Your task to perform on an android device: clear history in the chrome app Image 0: 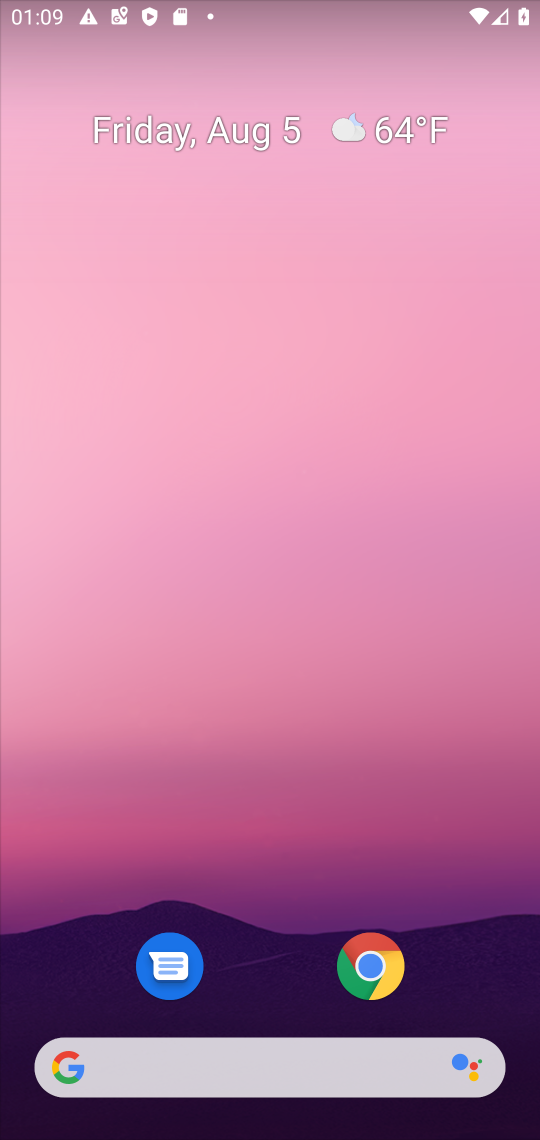
Step 0: click (387, 972)
Your task to perform on an android device: clear history in the chrome app Image 1: 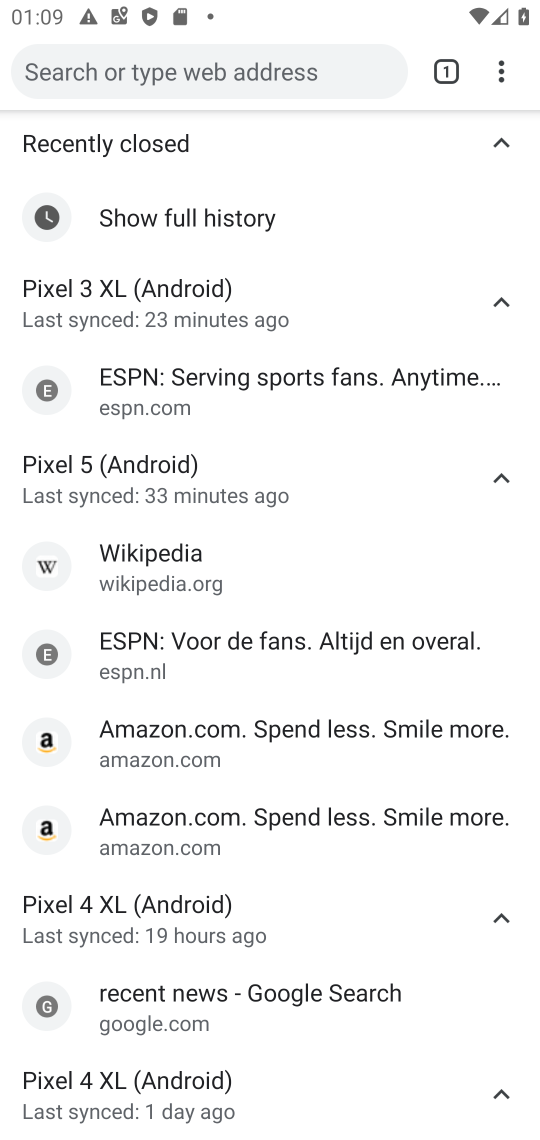
Step 1: click (500, 64)
Your task to perform on an android device: clear history in the chrome app Image 2: 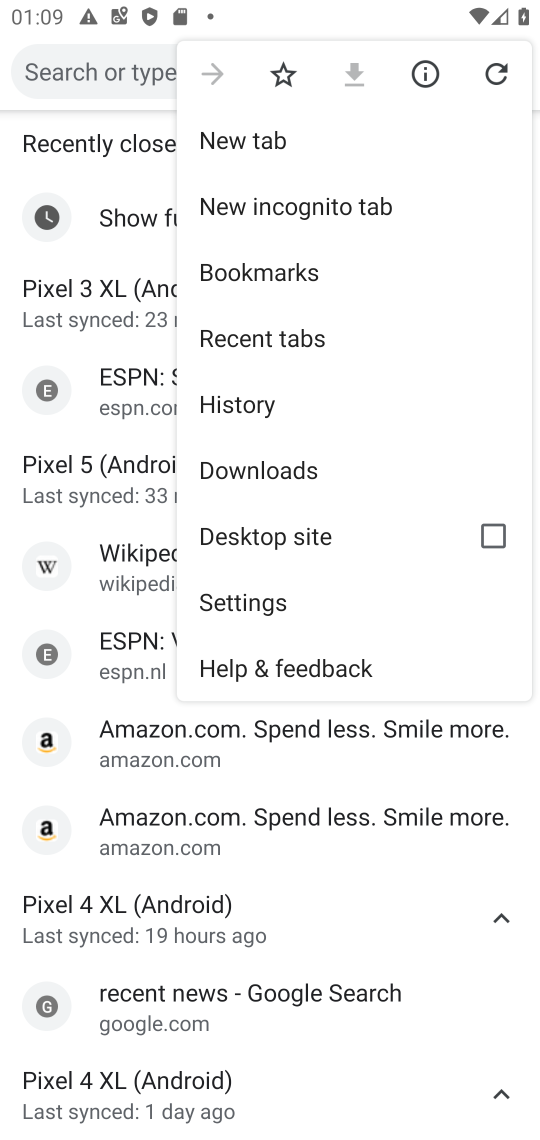
Step 2: click (262, 399)
Your task to perform on an android device: clear history in the chrome app Image 3: 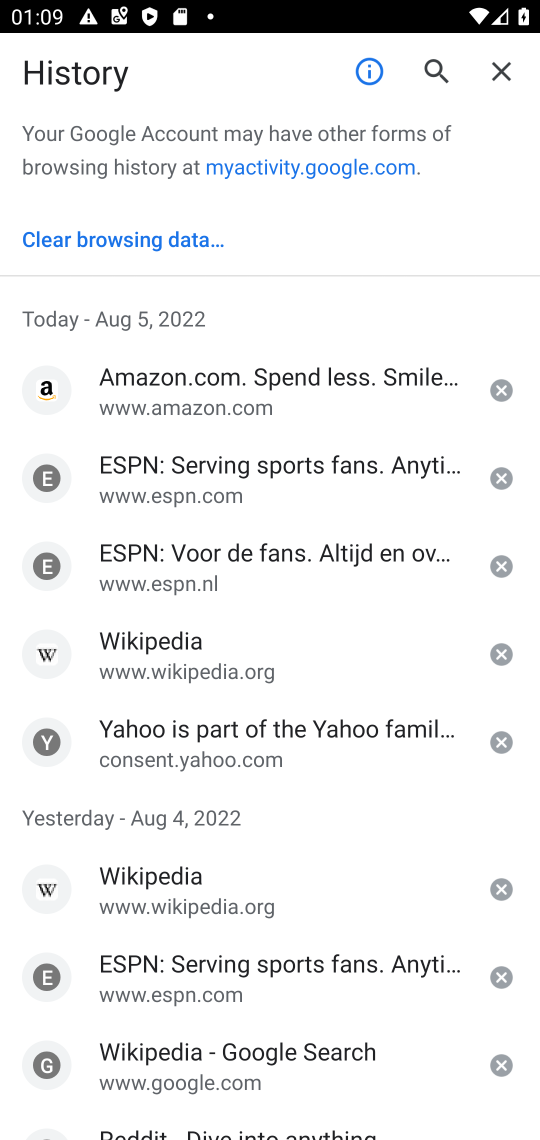
Step 3: click (140, 226)
Your task to perform on an android device: clear history in the chrome app Image 4: 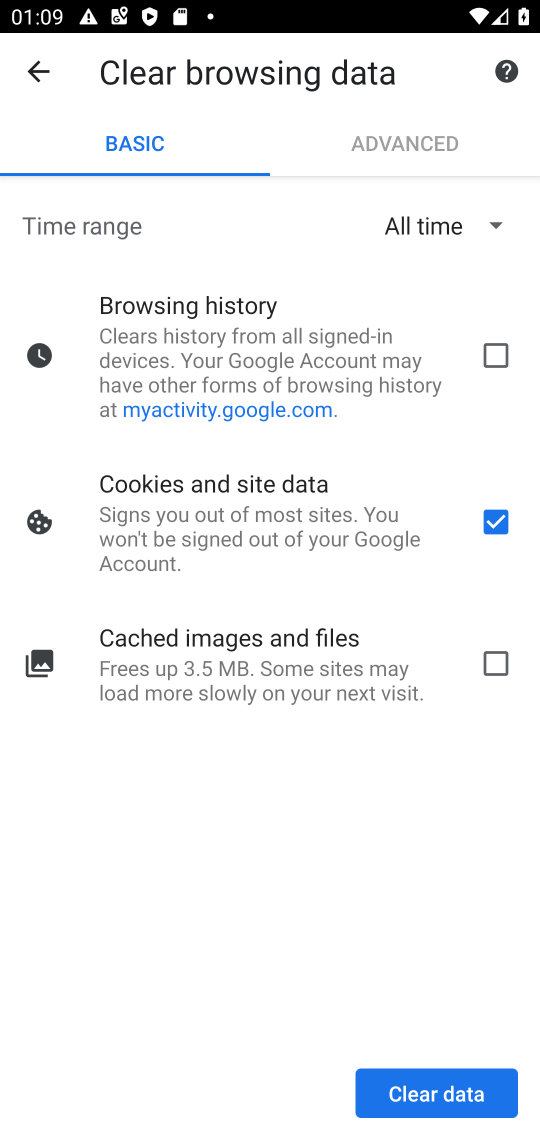
Step 4: click (491, 355)
Your task to perform on an android device: clear history in the chrome app Image 5: 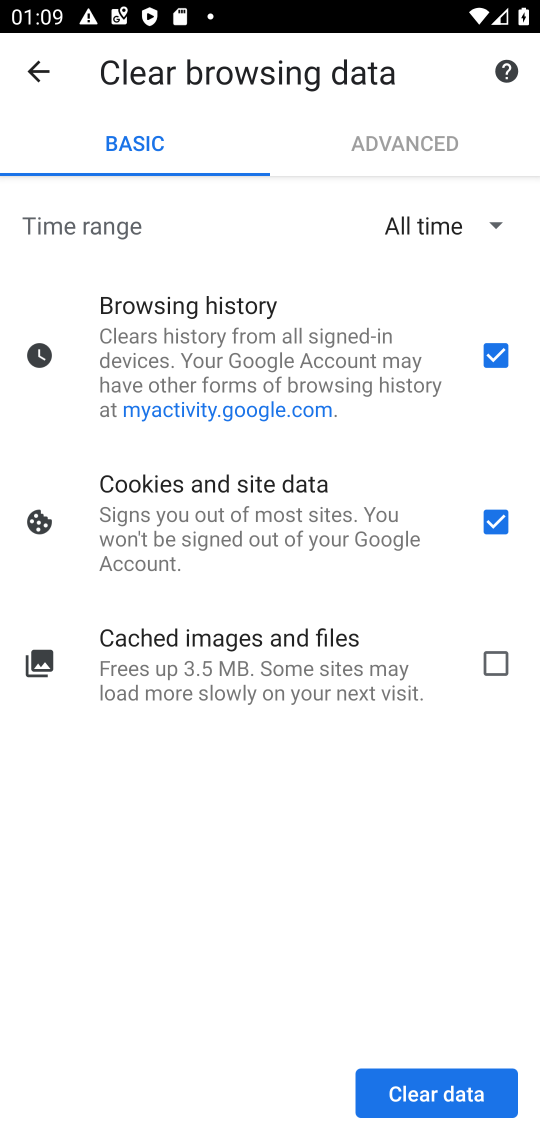
Step 5: click (490, 660)
Your task to perform on an android device: clear history in the chrome app Image 6: 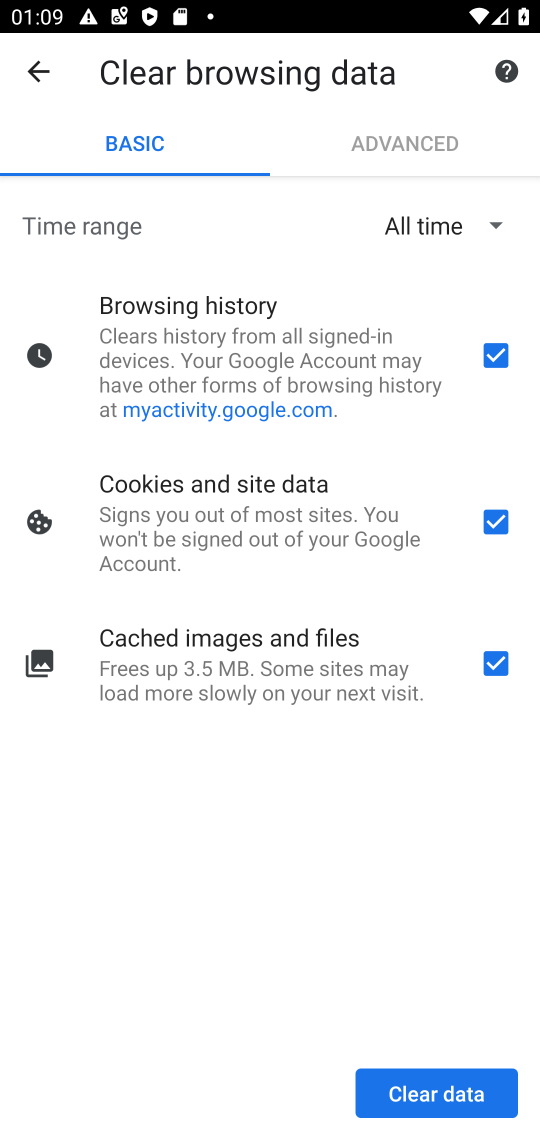
Step 6: click (489, 1093)
Your task to perform on an android device: clear history in the chrome app Image 7: 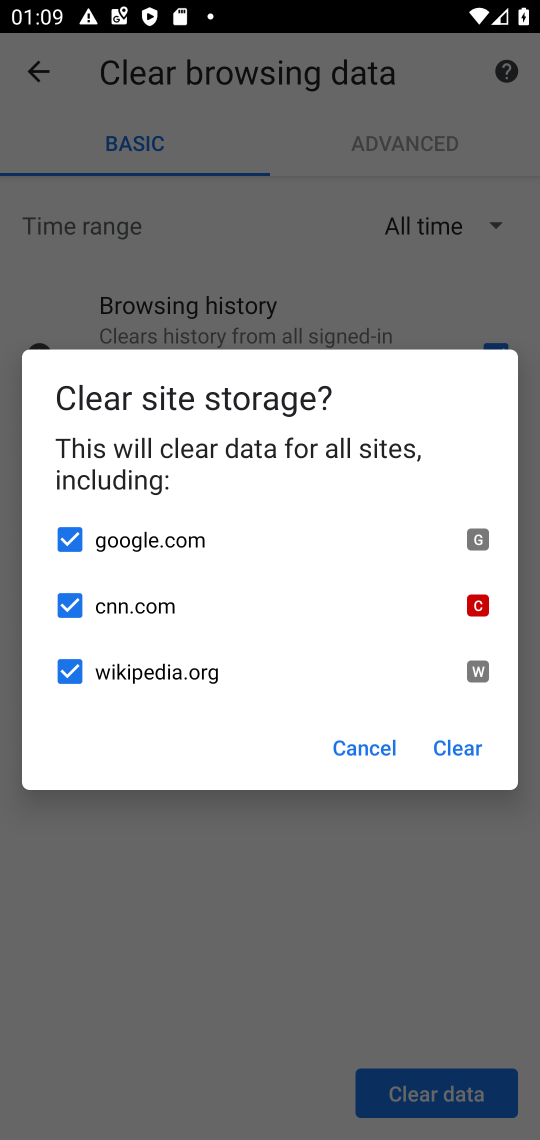
Step 7: click (447, 746)
Your task to perform on an android device: clear history in the chrome app Image 8: 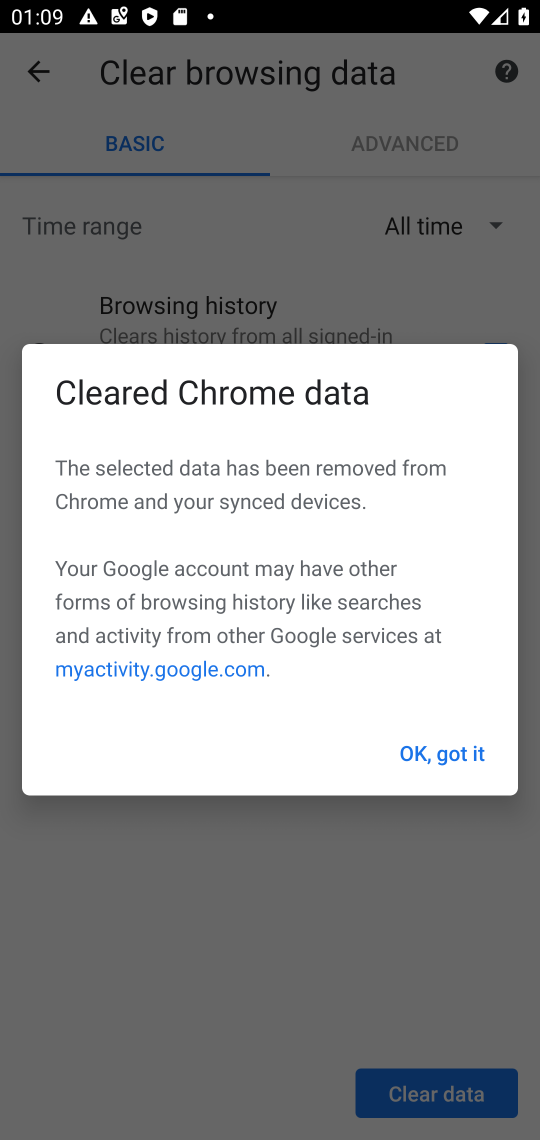
Step 8: click (455, 751)
Your task to perform on an android device: clear history in the chrome app Image 9: 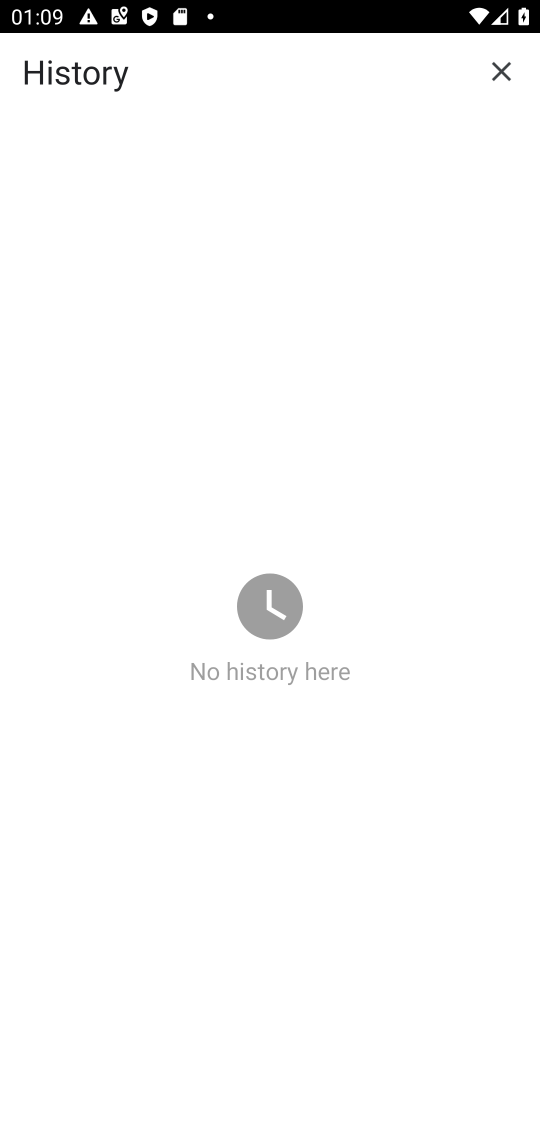
Step 9: task complete